Your task to perform on an android device: Open privacy settings Image 0: 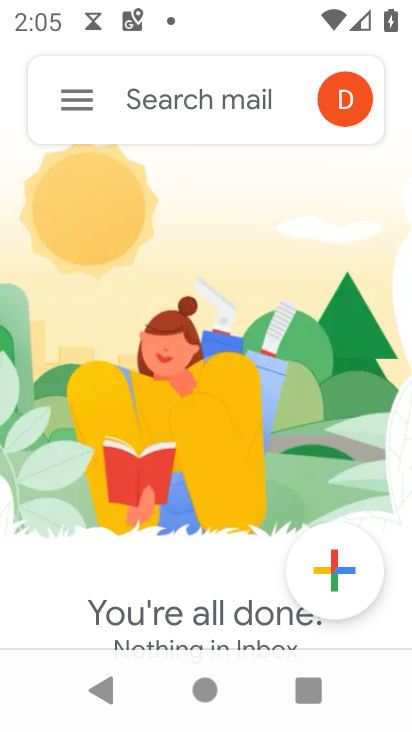
Step 0: press home button
Your task to perform on an android device: Open privacy settings Image 1: 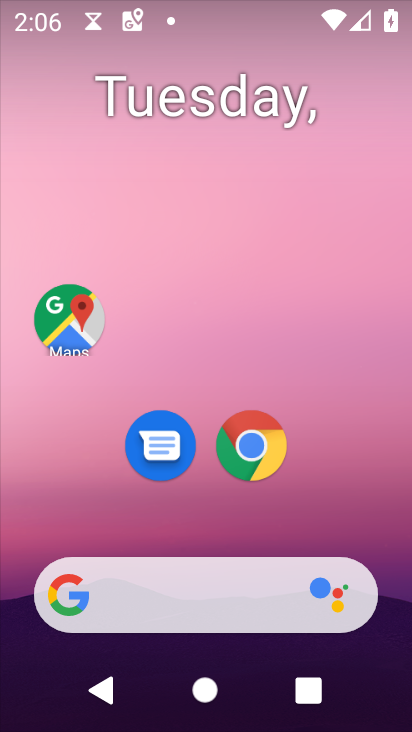
Step 1: drag from (337, 440) to (271, 111)
Your task to perform on an android device: Open privacy settings Image 2: 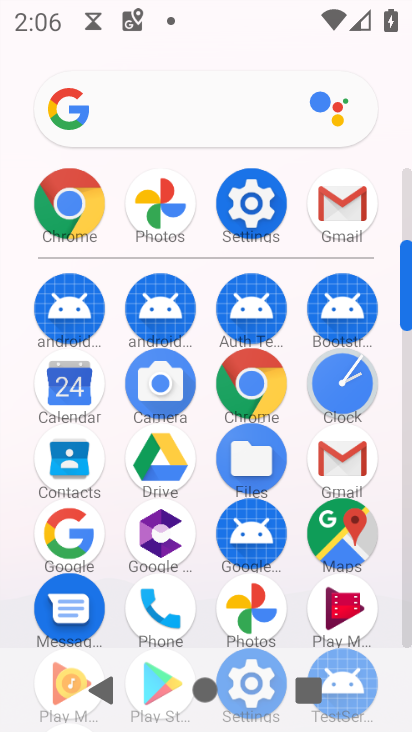
Step 2: click (252, 194)
Your task to perform on an android device: Open privacy settings Image 3: 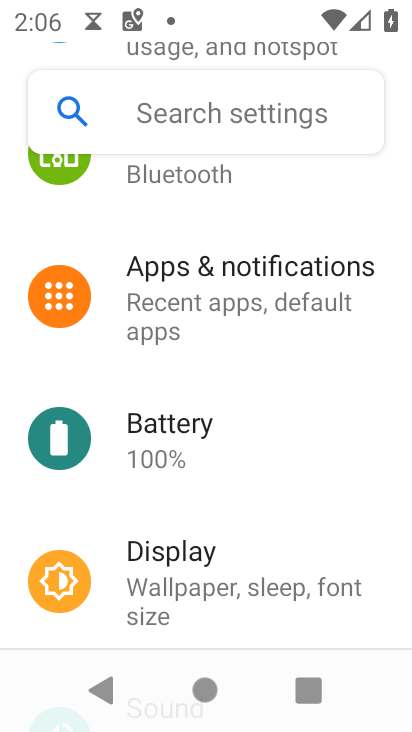
Step 3: drag from (234, 566) to (130, 214)
Your task to perform on an android device: Open privacy settings Image 4: 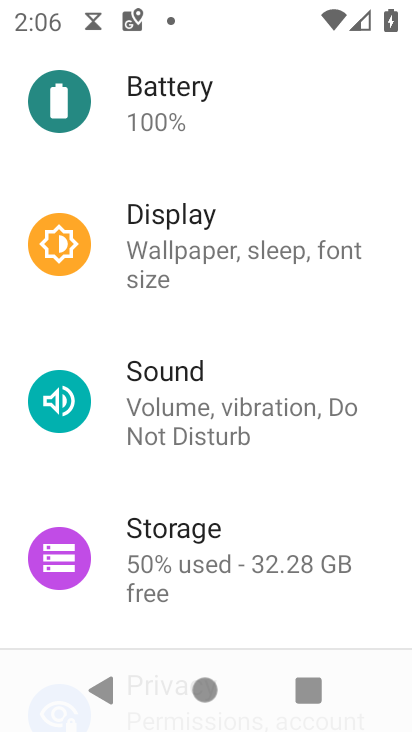
Step 4: drag from (257, 185) to (336, 510)
Your task to perform on an android device: Open privacy settings Image 5: 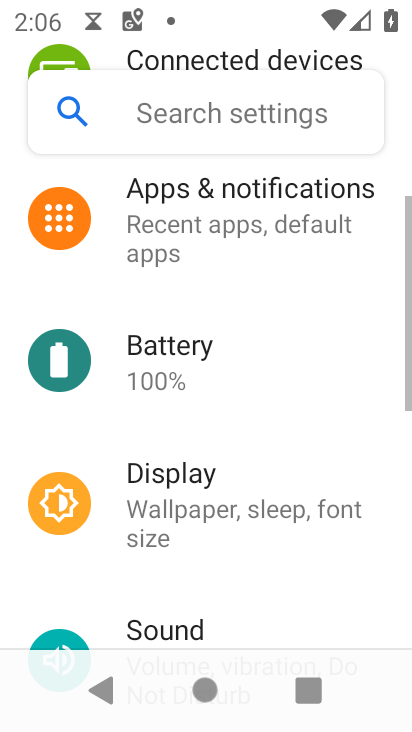
Step 5: drag from (257, 224) to (284, 524)
Your task to perform on an android device: Open privacy settings Image 6: 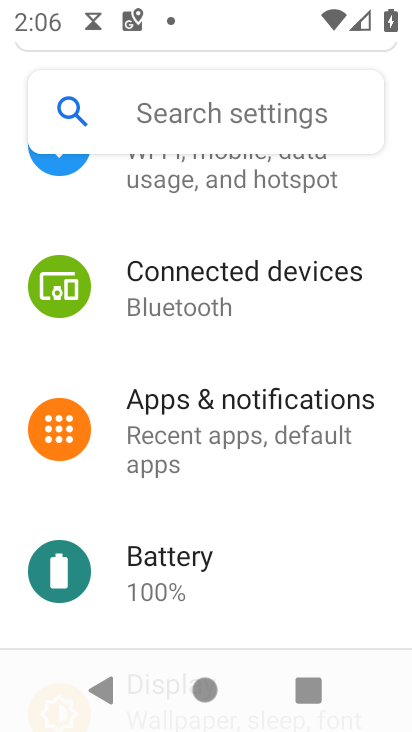
Step 6: drag from (256, 259) to (300, 567)
Your task to perform on an android device: Open privacy settings Image 7: 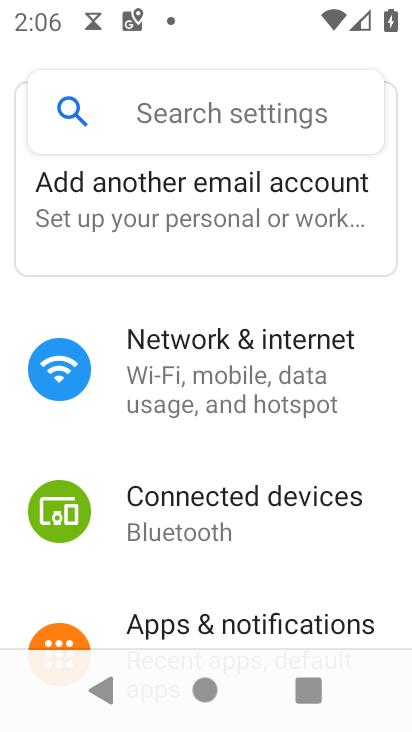
Step 7: drag from (280, 302) to (275, 190)
Your task to perform on an android device: Open privacy settings Image 8: 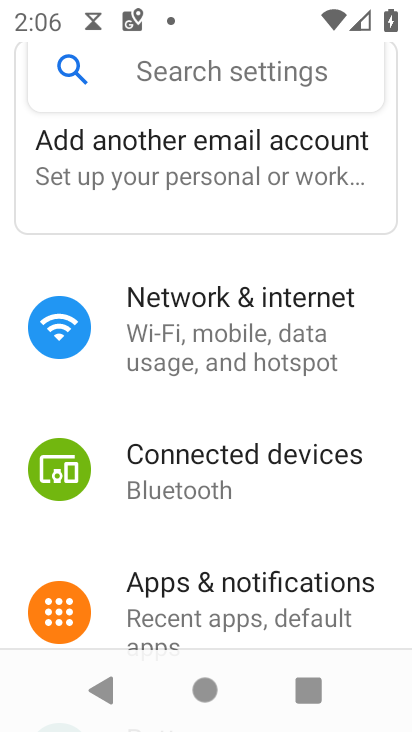
Step 8: drag from (213, 555) to (219, 202)
Your task to perform on an android device: Open privacy settings Image 9: 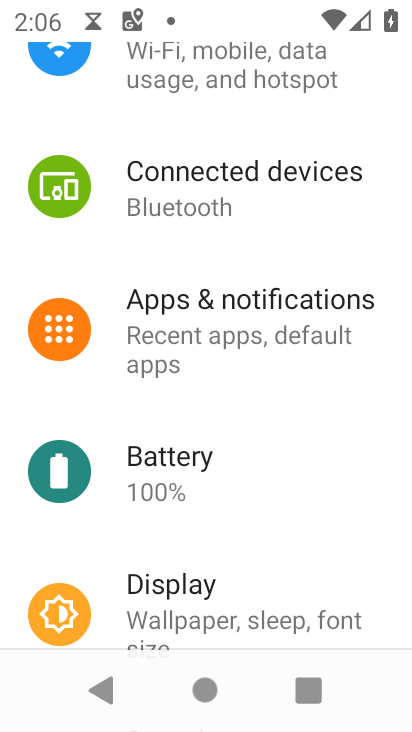
Step 9: drag from (209, 501) to (154, 154)
Your task to perform on an android device: Open privacy settings Image 10: 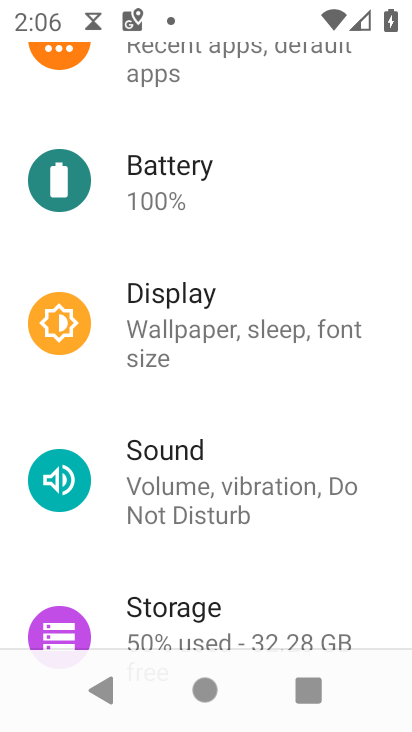
Step 10: drag from (217, 515) to (205, 201)
Your task to perform on an android device: Open privacy settings Image 11: 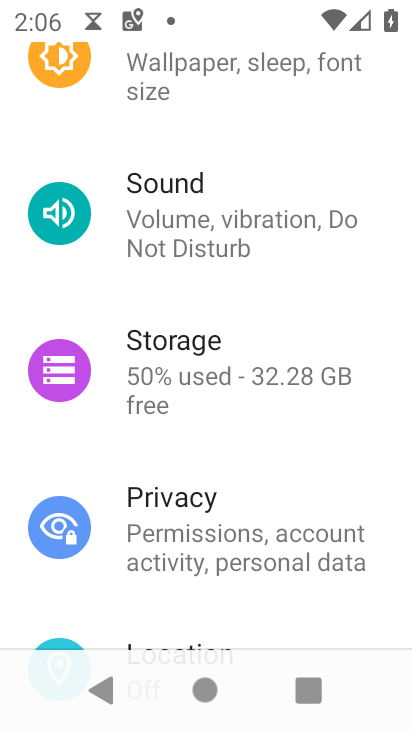
Step 11: click (176, 507)
Your task to perform on an android device: Open privacy settings Image 12: 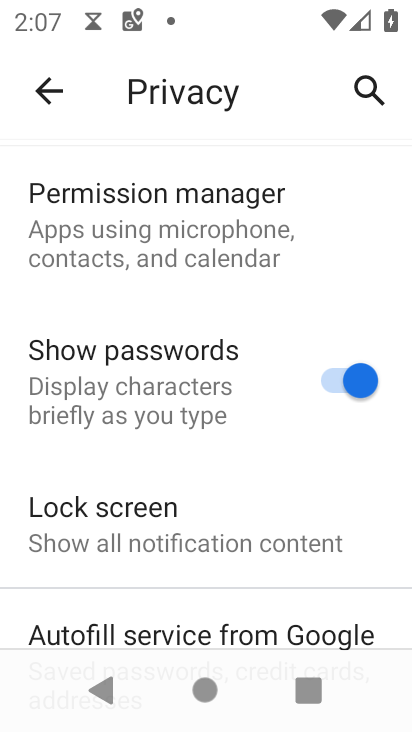
Step 12: task complete